Your task to perform on an android device: Go to sound settings Image 0: 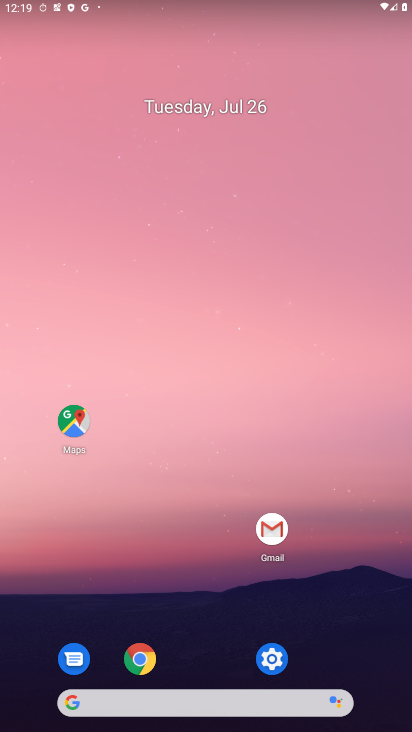
Step 0: click (280, 653)
Your task to perform on an android device: Go to sound settings Image 1: 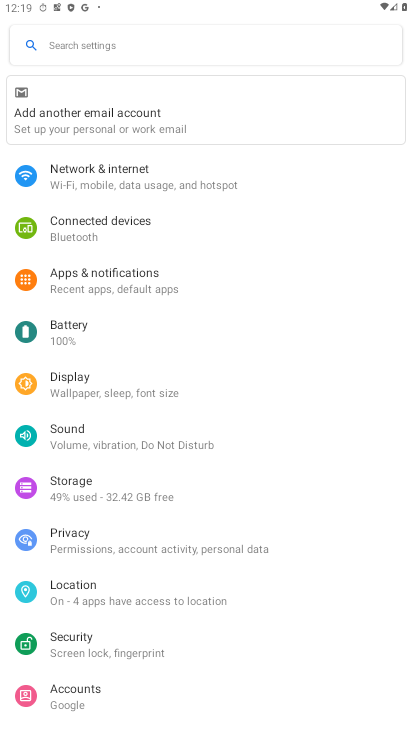
Step 1: click (105, 440)
Your task to perform on an android device: Go to sound settings Image 2: 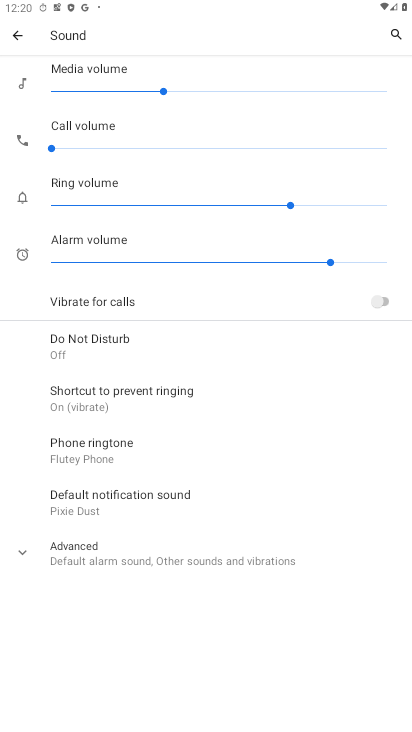
Step 2: task complete